Your task to perform on an android device: toggle wifi Image 0: 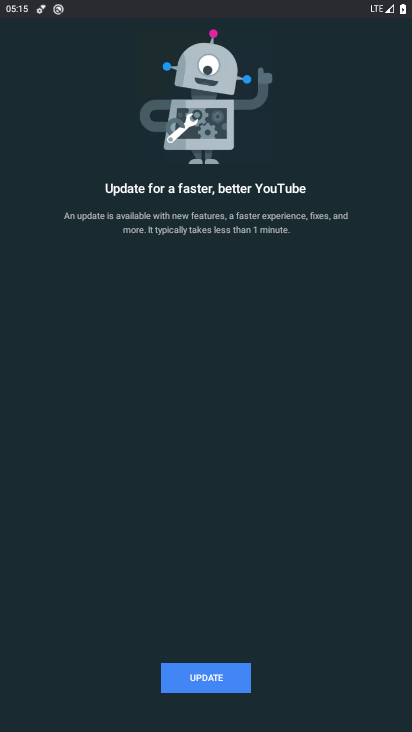
Step 0: press home button
Your task to perform on an android device: toggle wifi Image 1: 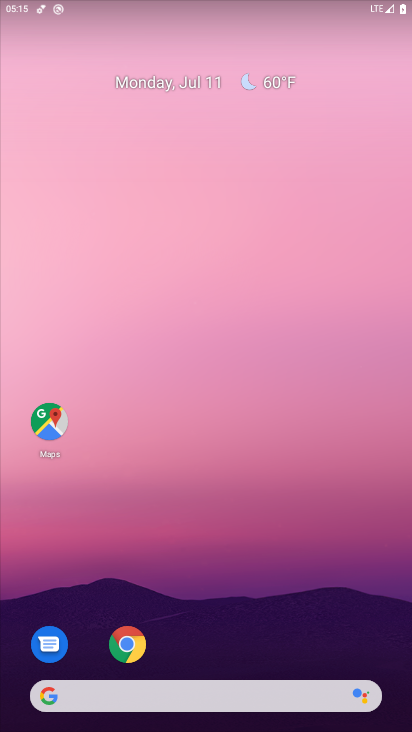
Step 1: drag from (219, 687) to (200, 164)
Your task to perform on an android device: toggle wifi Image 2: 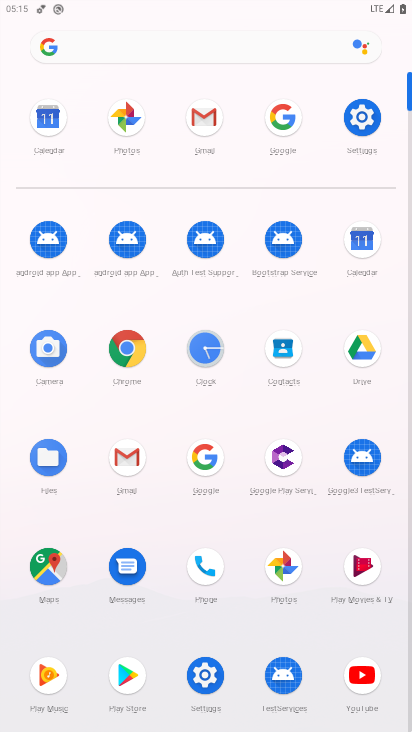
Step 2: click (358, 120)
Your task to perform on an android device: toggle wifi Image 3: 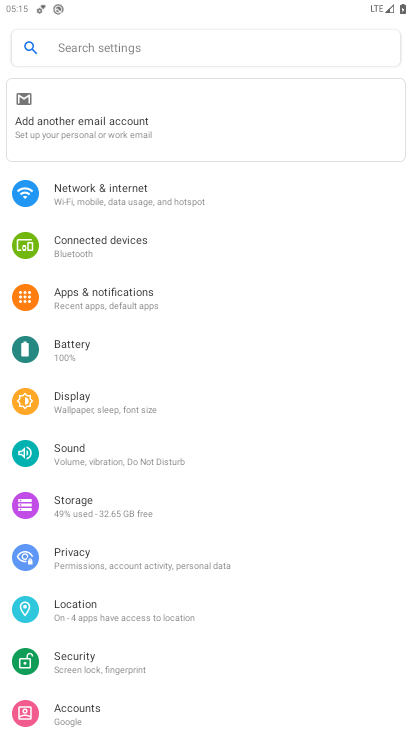
Step 3: click (137, 196)
Your task to perform on an android device: toggle wifi Image 4: 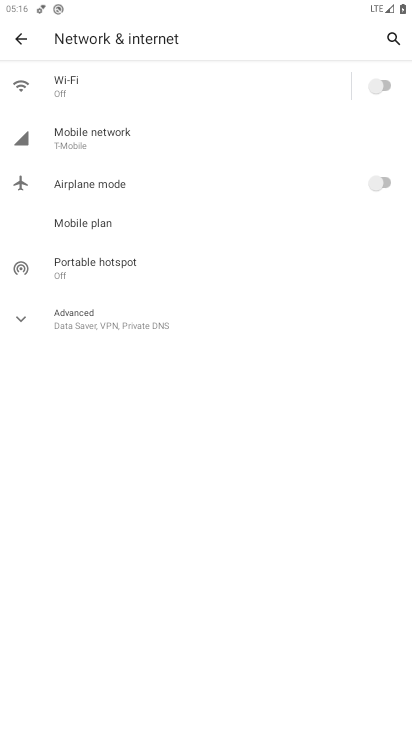
Step 4: click (390, 83)
Your task to perform on an android device: toggle wifi Image 5: 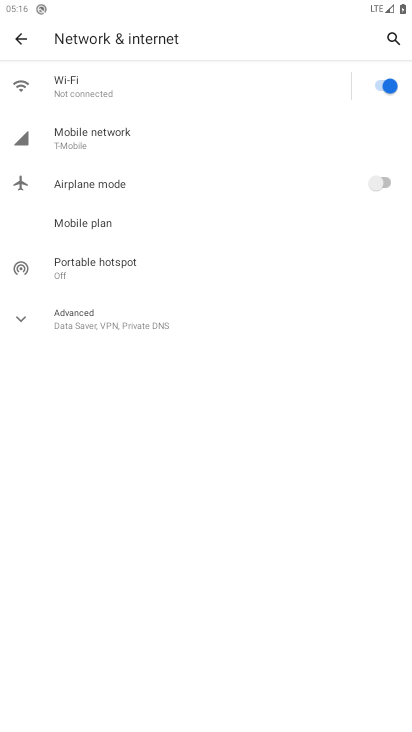
Step 5: task complete